Your task to perform on an android device: Show me popular videos on Youtube Image 0: 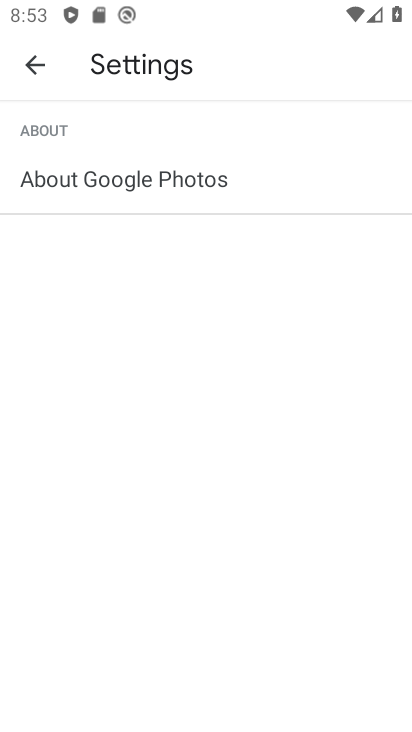
Step 0: press home button
Your task to perform on an android device: Show me popular videos on Youtube Image 1: 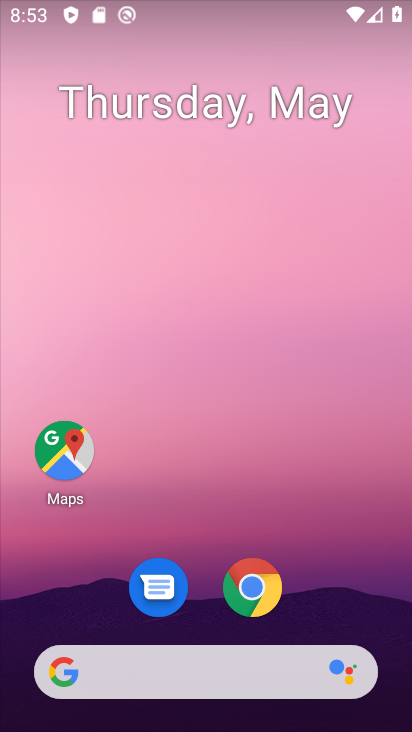
Step 1: drag from (344, 442) to (398, 244)
Your task to perform on an android device: Show me popular videos on Youtube Image 2: 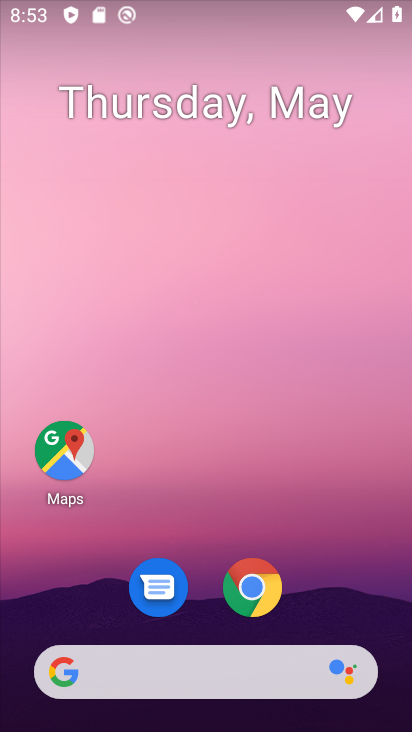
Step 2: drag from (361, 591) to (383, 103)
Your task to perform on an android device: Show me popular videos on Youtube Image 3: 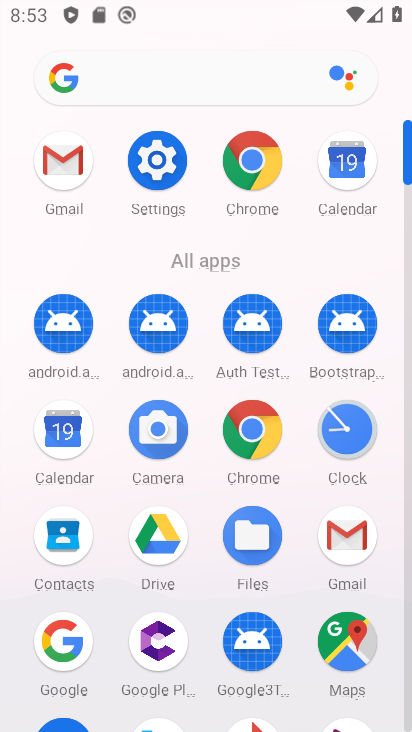
Step 3: drag from (381, 537) to (411, 375)
Your task to perform on an android device: Show me popular videos on Youtube Image 4: 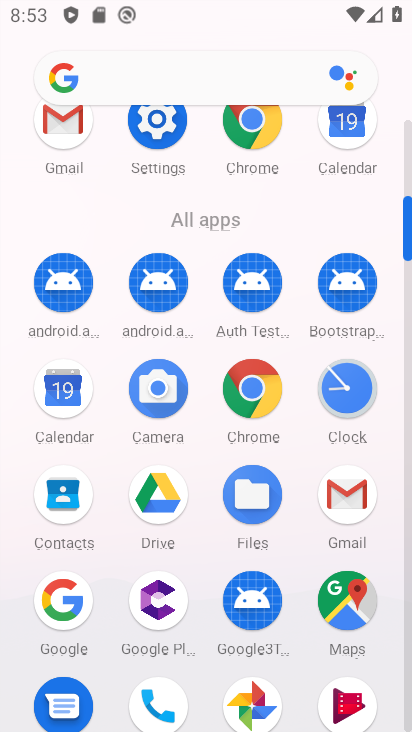
Step 4: drag from (389, 639) to (387, 281)
Your task to perform on an android device: Show me popular videos on Youtube Image 5: 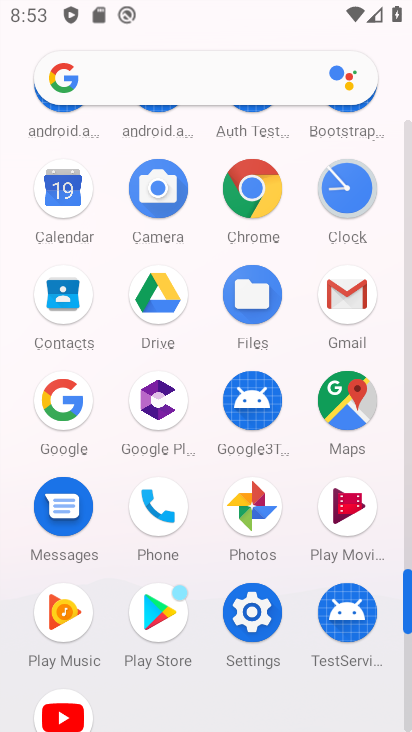
Step 5: click (71, 701)
Your task to perform on an android device: Show me popular videos on Youtube Image 6: 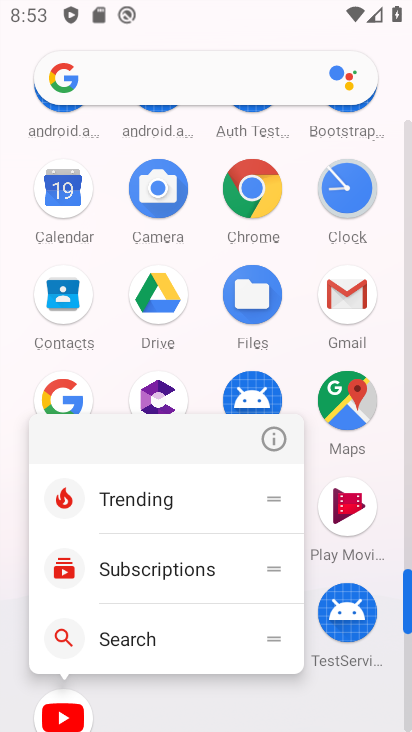
Step 6: click (61, 714)
Your task to perform on an android device: Show me popular videos on Youtube Image 7: 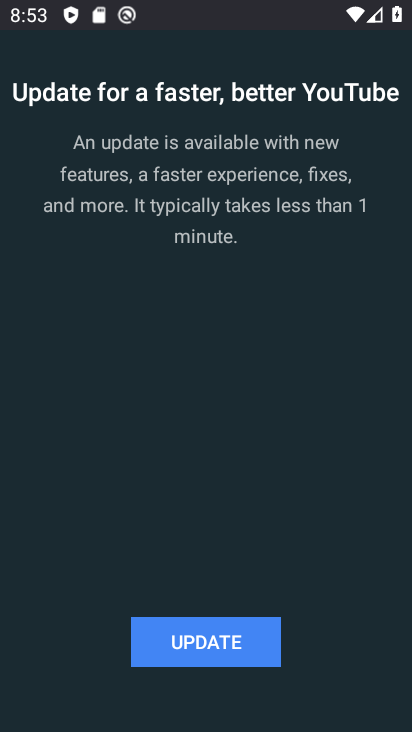
Step 7: click (194, 646)
Your task to perform on an android device: Show me popular videos on Youtube Image 8: 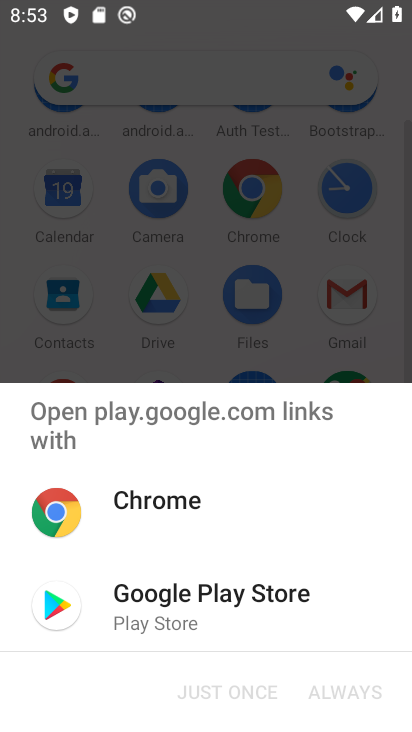
Step 8: click (131, 605)
Your task to perform on an android device: Show me popular videos on Youtube Image 9: 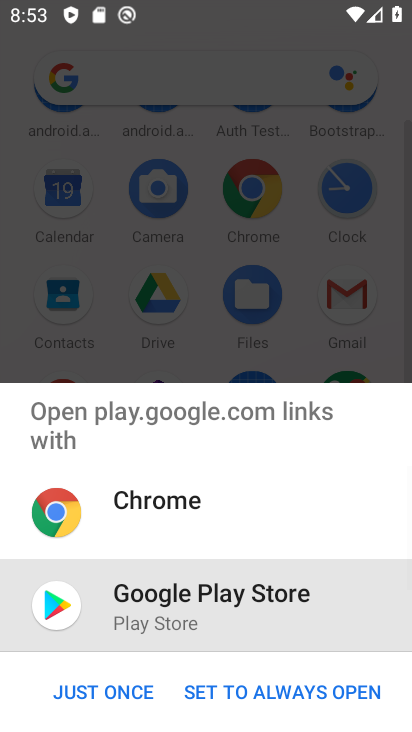
Step 9: click (88, 698)
Your task to perform on an android device: Show me popular videos on Youtube Image 10: 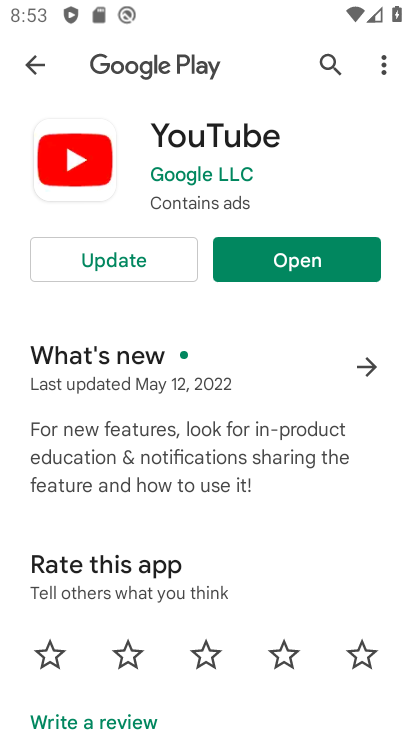
Step 10: click (115, 261)
Your task to perform on an android device: Show me popular videos on Youtube Image 11: 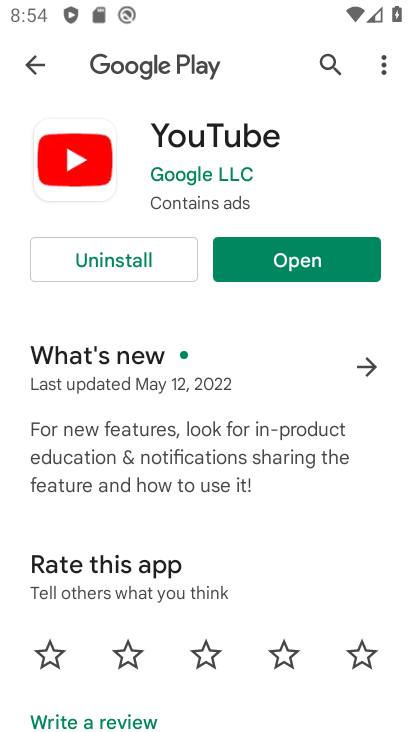
Step 11: click (286, 252)
Your task to perform on an android device: Show me popular videos on Youtube Image 12: 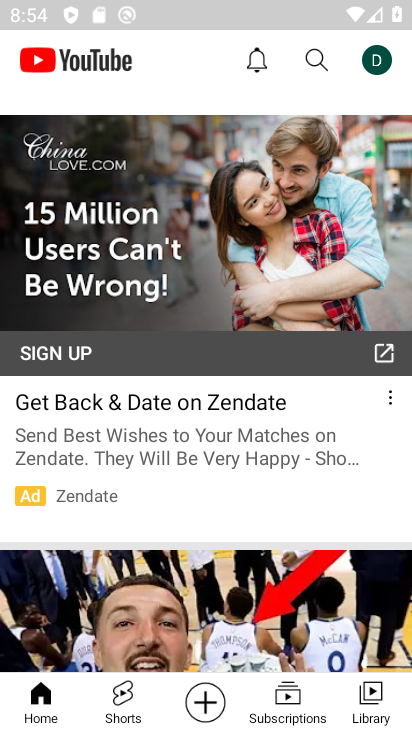
Step 12: click (323, 53)
Your task to perform on an android device: Show me popular videos on Youtube Image 13: 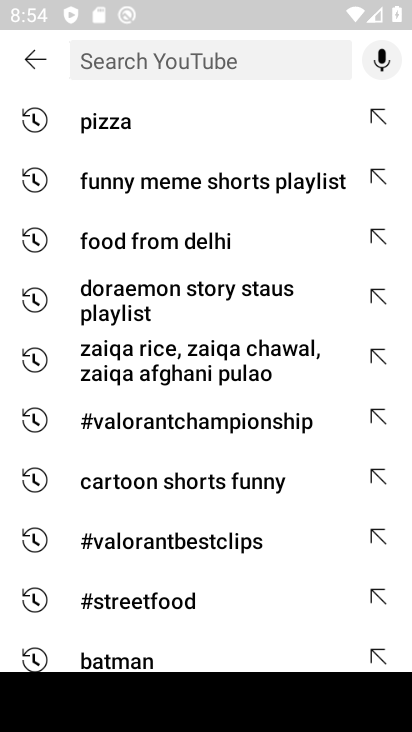
Step 13: type "popular videos"
Your task to perform on an android device: Show me popular videos on Youtube Image 14: 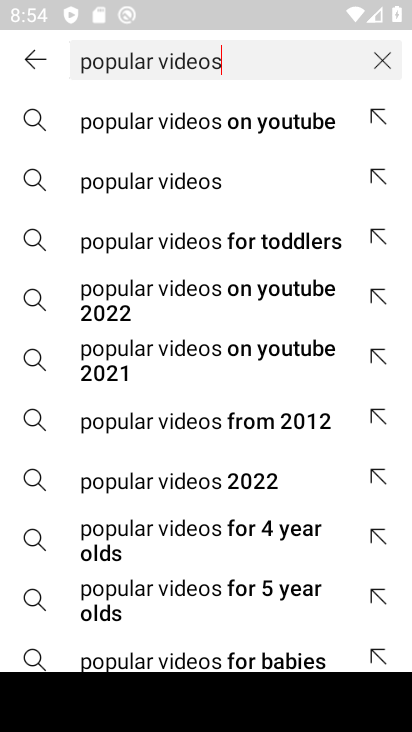
Step 14: click (296, 122)
Your task to perform on an android device: Show me popular videos on Youtube Image 15: 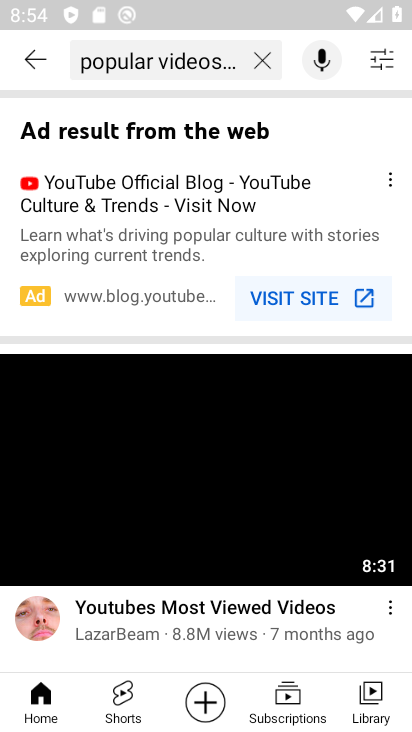
Step 15: task complete